Your task to perform on an android device: manage bookmarks in the chrome app Image 0: 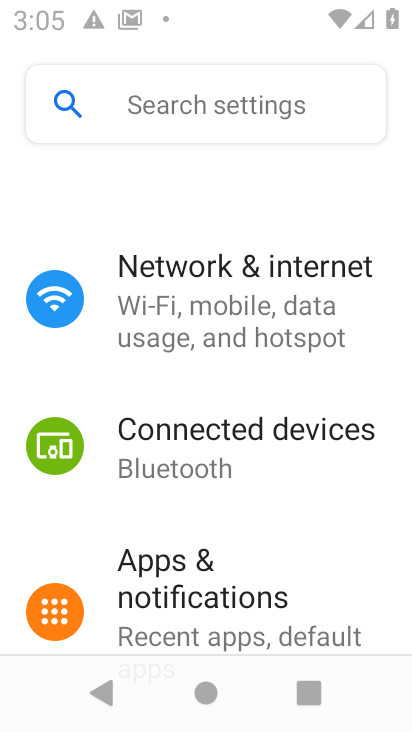
Step 0: drag from (160, 490) to (221, 329)
Your task to perform on an android device: manage bookmarks in the chrome app Image 1: 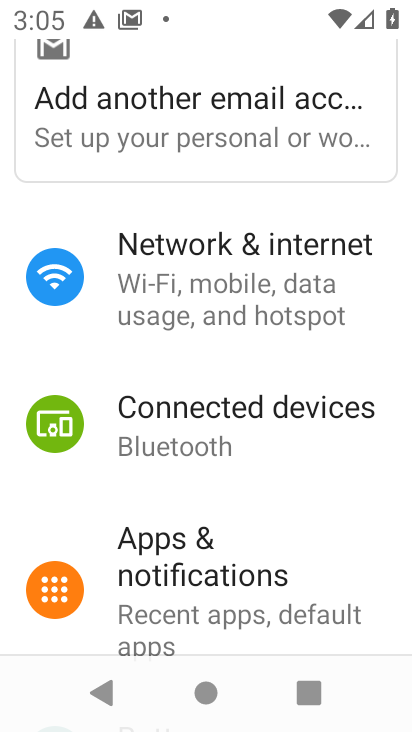
Step 1: task complete